Your task to perform on an android device: Open Android settings Image 0: 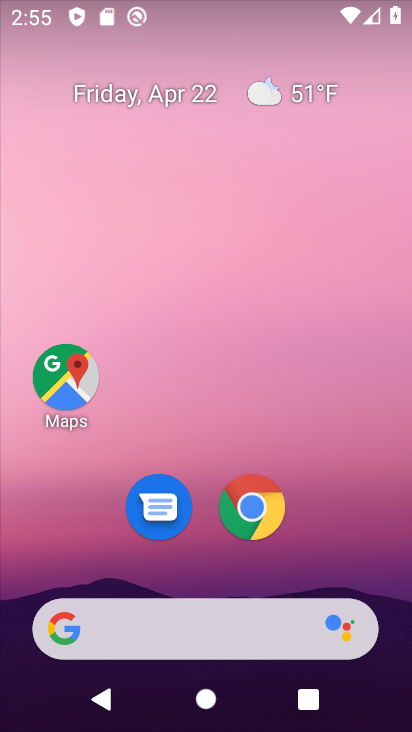
Step 0: drag from (202, 573) to (242, 87)
Your task to perform on an android device: Open Android settings Image 1: 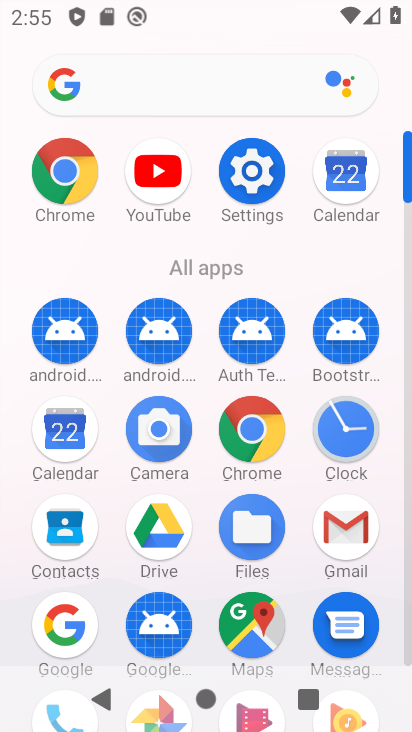
Step 1: click (238, 185)
Your task to perform on an android device: Open Android settings Image 2: 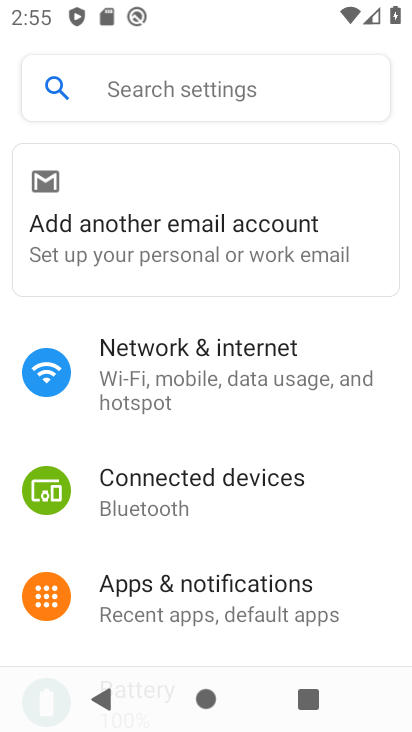
Step 2: task complete